Your task to perform on an android device: change alarm snooze length Image 0: 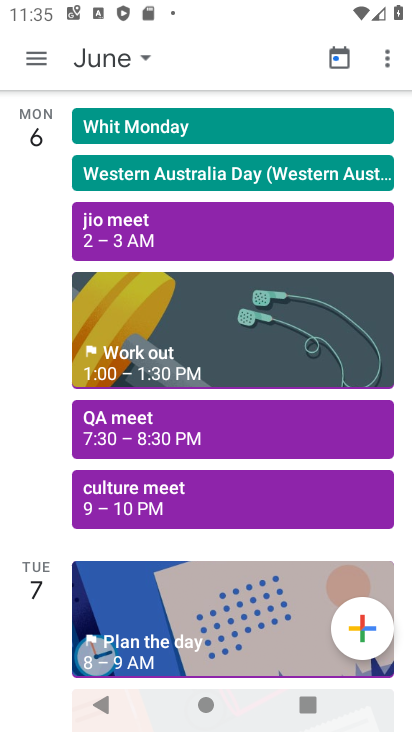
Step 0: press home button
Your task to perform on an android device: change alarm snooze length Image 1: 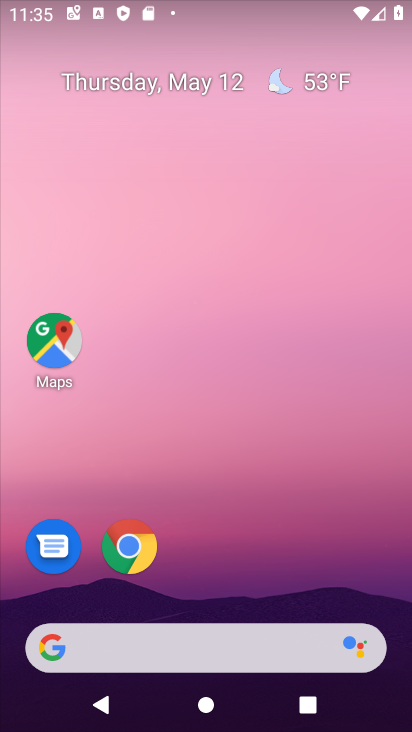
Step 1: drag from (270, 668) to (212, 230)
Your task to perform on an android device: change alarm snooze length Image 2: 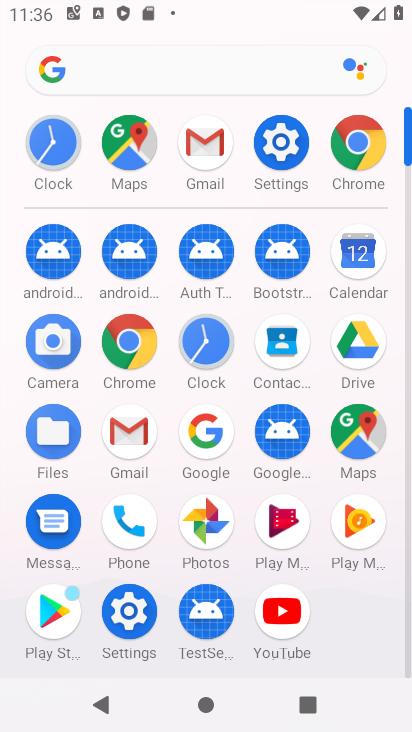
Step 2: click (197, 340)
Your task to perform on an android device: change alarm snooze length Image 3: 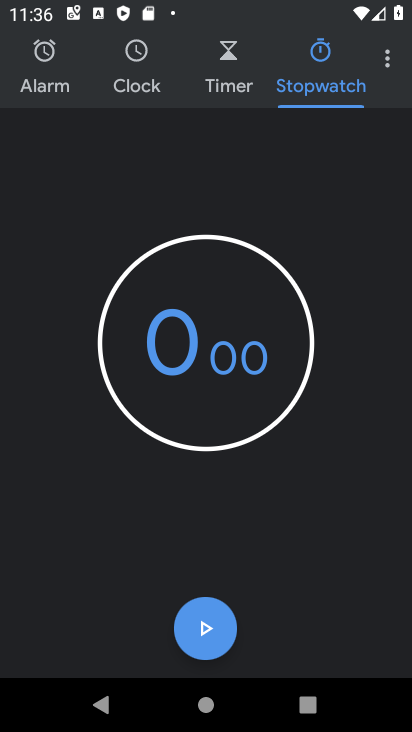
Step 3: click (382, 63)
Your task to perform on an android device: change alarm snooze length Image 4: 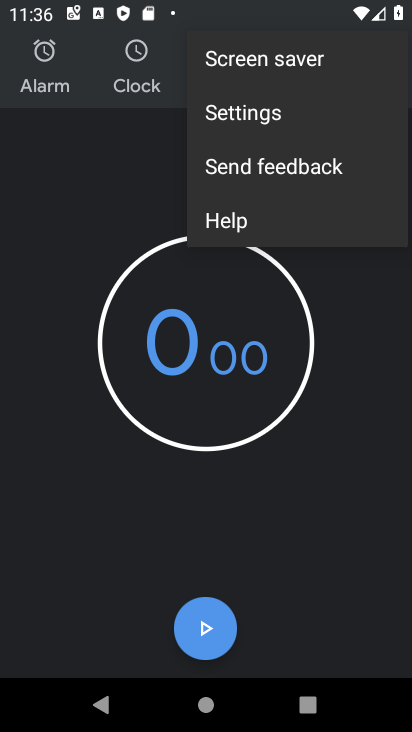
Step 4: click (281, 116)
Your task to perform on an android device: change alarm snooze length Image 5: 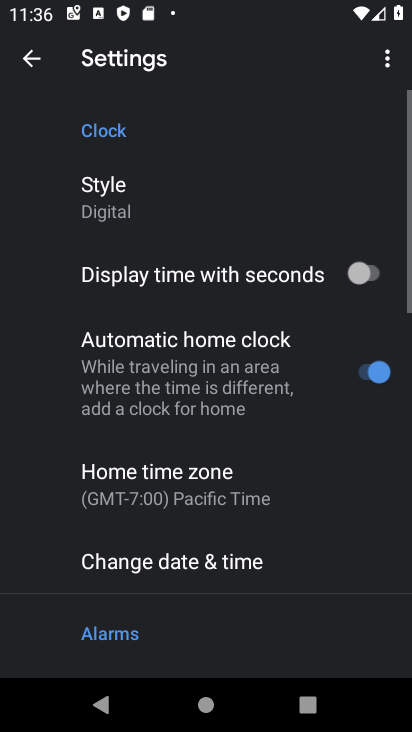
Step 5: drag from (239, 502) to (259, 150)
Your task to perform on an android device: change alarm snooze length Image 6: 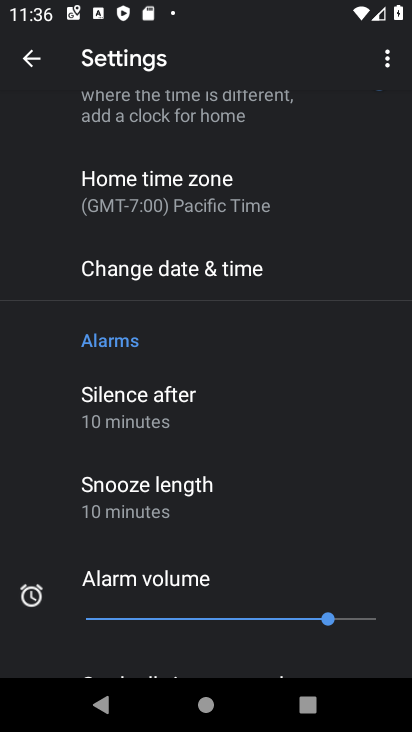
Step 6: click (183, 475)
Your task to perform on an android device: change alarm snooze length Image 7: 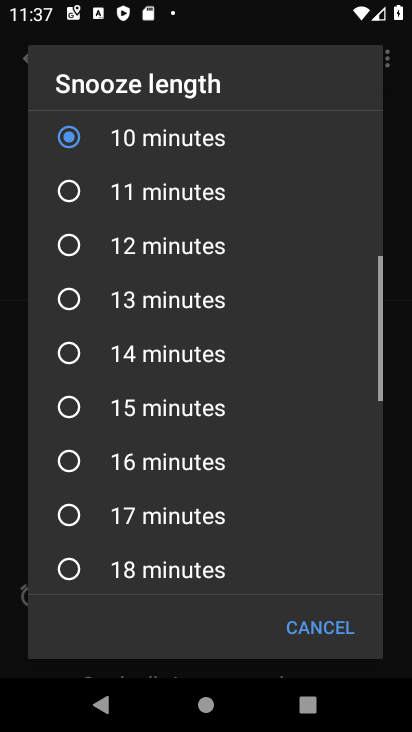
Step 7: click (123, 439)
Your task to perform on an android device: change alarm snooze length Image 8: 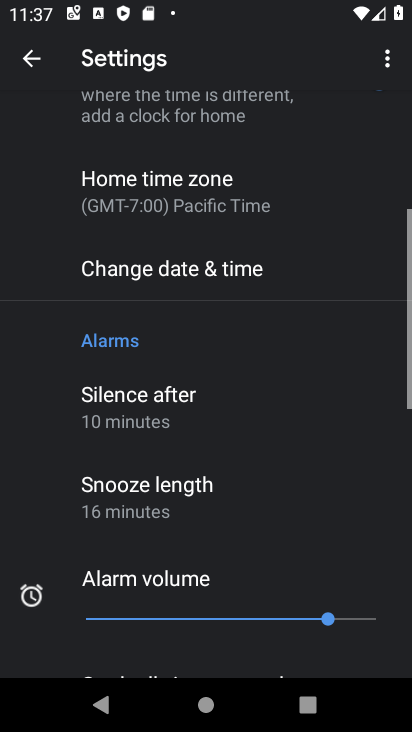
Step 8: task complete